Your task to perform on an android device: Open Google Image 0: 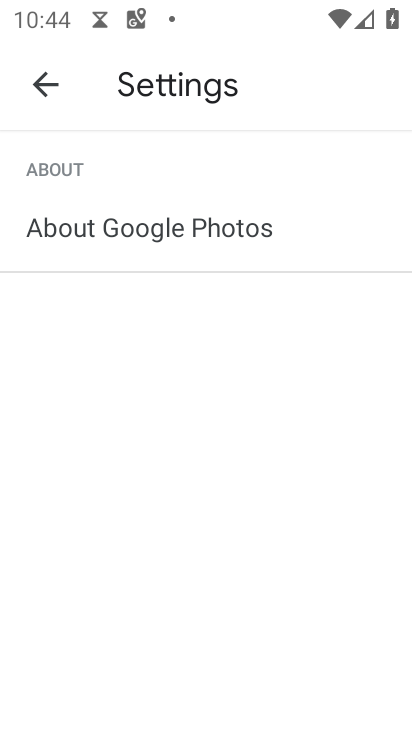
Step 0: press home button
Your task to perform on an android device: Open Google Image 1: 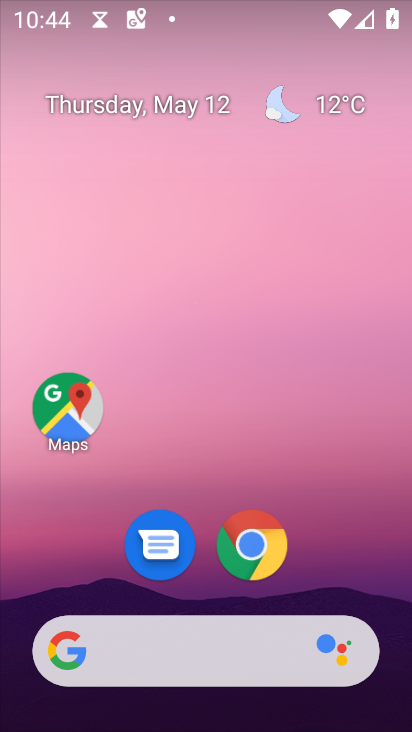
Step 1: drag from (204, 580) to (214, 34)
Your task to perform on an android device: Open Google Image 2: 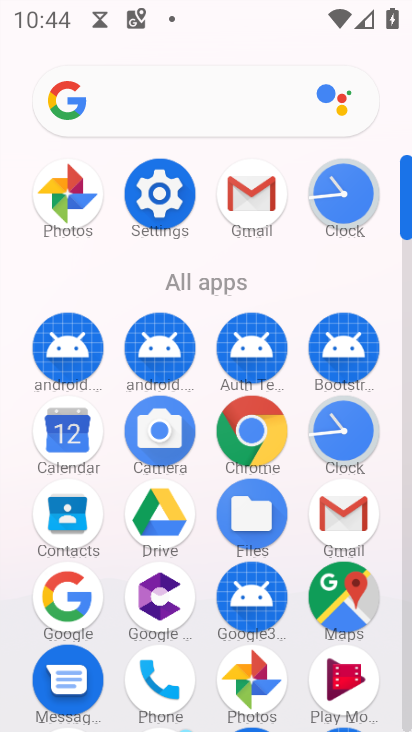
Step 2: drag from (200, 557) to (200, 104)
Your task to perform on an android device: Open Google Image 3: 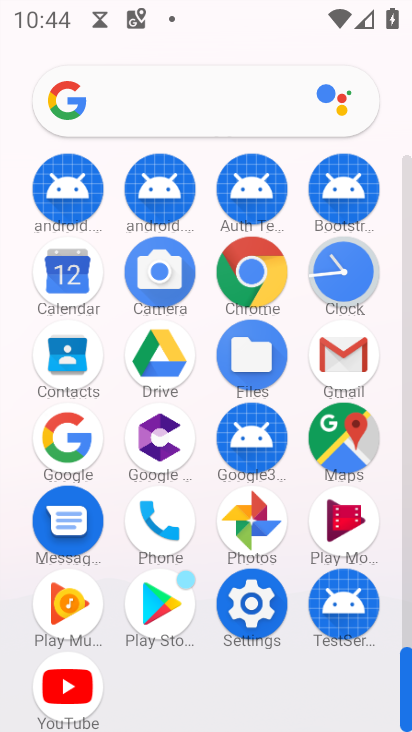
Step 3: click (66, 435)
Your task to perform on an android device: Open Google Image 4: 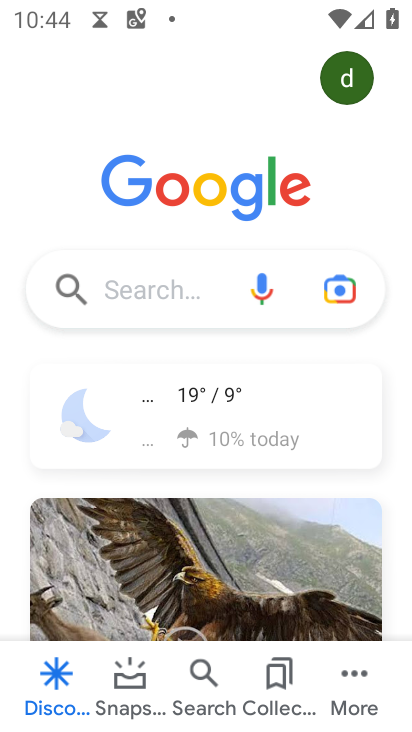
Step 4: task complete